Your task to perform on an android device: clear history in the chrome app Image 0: 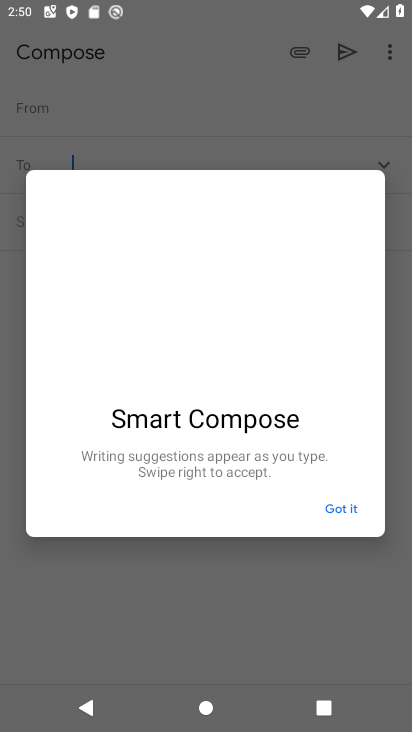
Step 0: drag from (303, 589) to (266, 112)
Your task to perform on an android device: clear history in the chrome app Image 1: 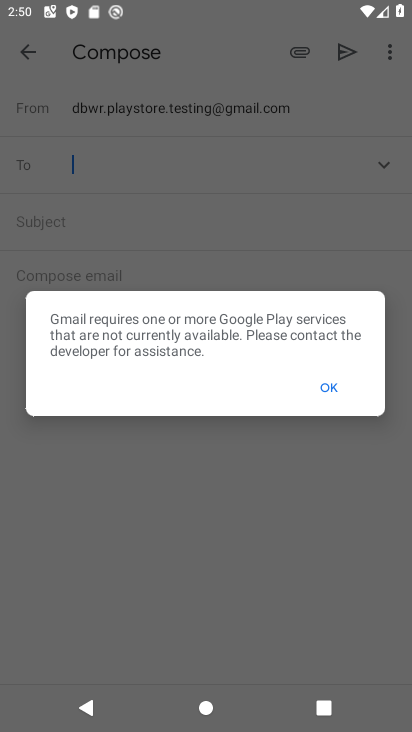
Step 1: press home button
Your task to perform on an android device: clear history in the chrome app Image 2: 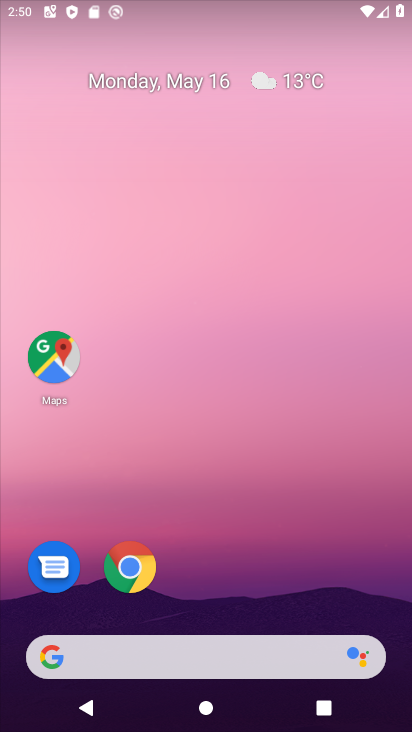
Step 2: drag from (298, 616) to (309, 199)
Your task to perform on an android device: clear history in the chrome app Image 3: 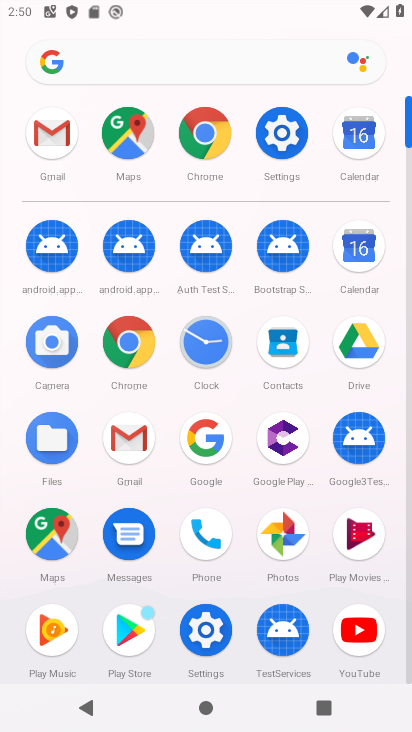
Step 3: click (120, 327)
Your task to perform on an android device: clear history in the chrome app Image 4: 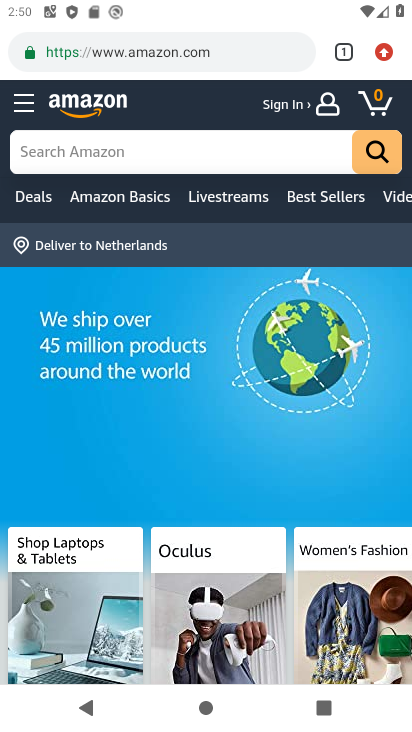
Step 4: drag from (399, 46) to (232, 277)
Your task to perform on an android device: clear history in the chrome app Image 5: 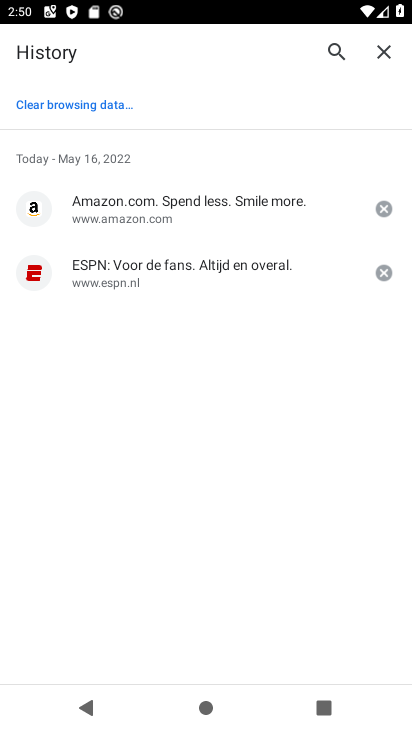
Step 5: click (90, 104)
Your task to perform on an android device: clear history in the chrome app Image 6: 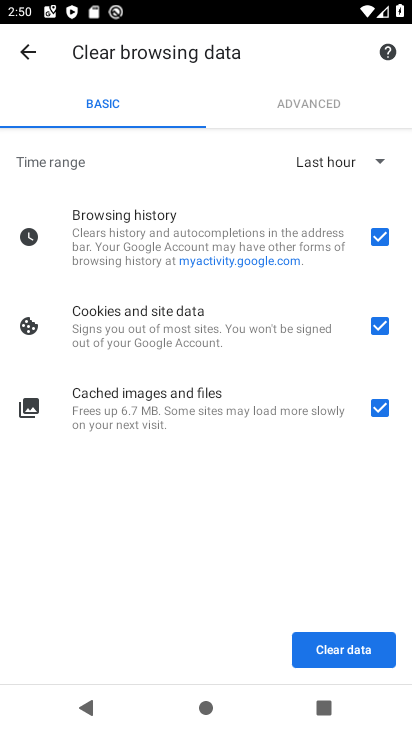
Step 6: click (387, 650)
Your task to perform on an android device: clear history in the chrome app Image 7: 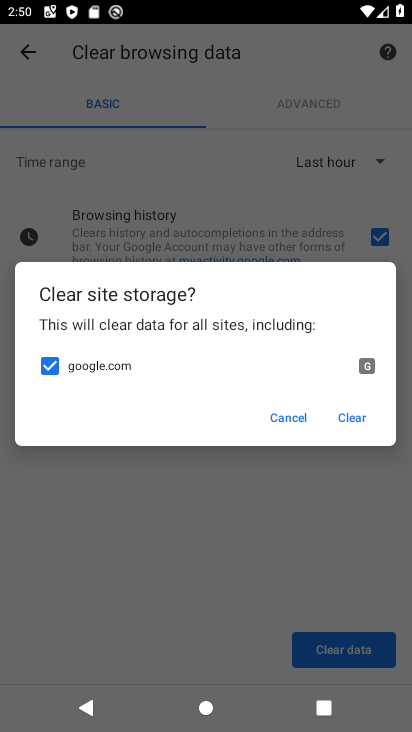
Step 7: click (346, 426)
Your task to perform on an android device: clear history in the chrome app Image 8: 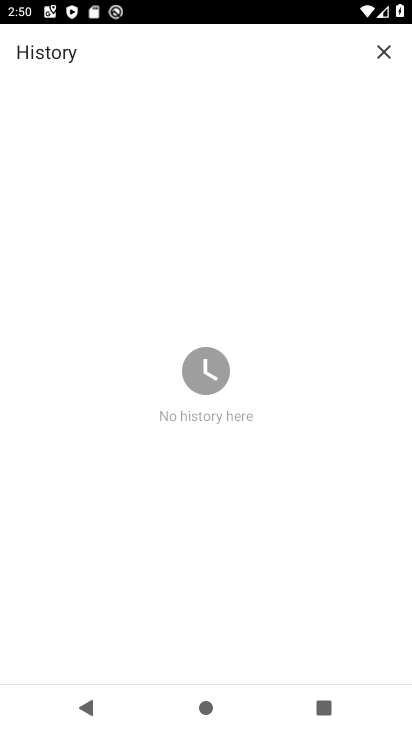
Step 8: task complete